Your task to perform on an android device: Go to Amazon Image 0: 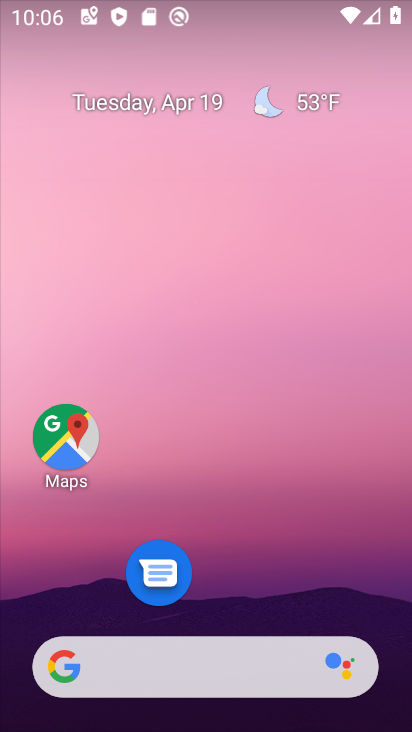
Step 0: drag from (226, 604) to (184, 24)
Your task to perform on an android device: Go to Amazon Image 1: 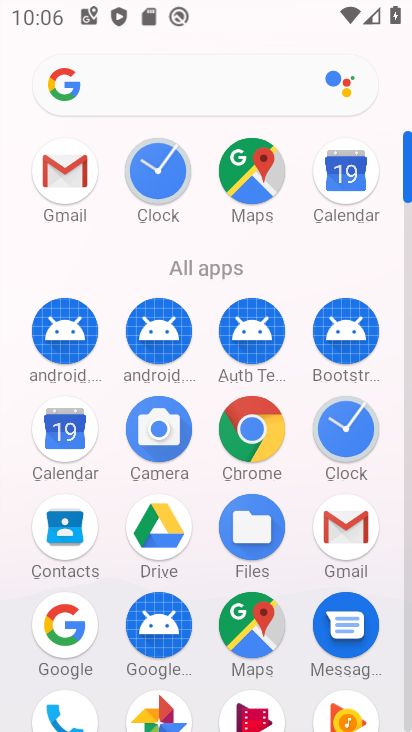
Step 1: click (234, 429)
Your task to perform on an android device: Go to Amazon Image 2: 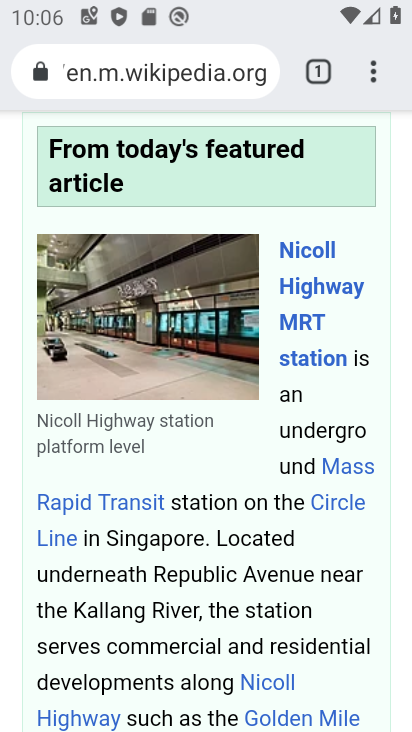
Step 2: click (321, 67)
Your task to perform on an android device: Go to Amazon Image 3: 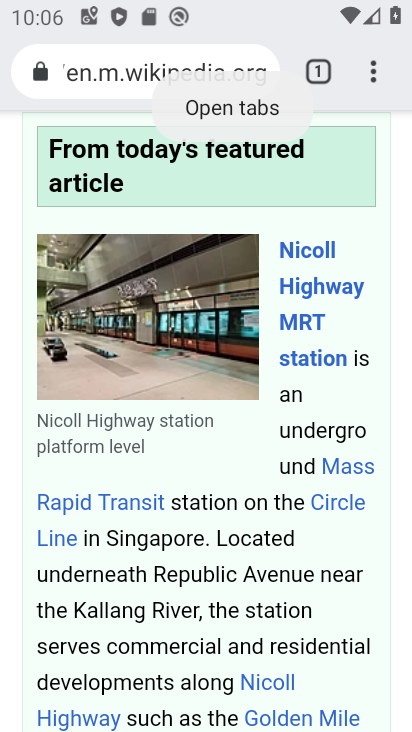
Step 3: click (311, 70)
Your task to perform on an android device: Go to Amazon Image 4: 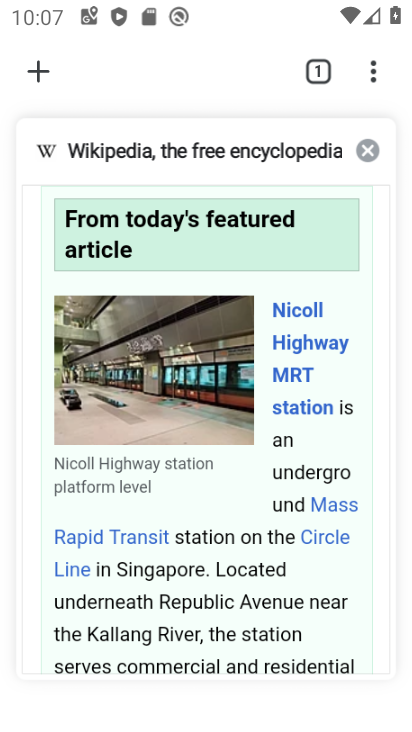
Step 4: click (41, 62)
Your task to perform on an android device: Go to Amazon Image 5: 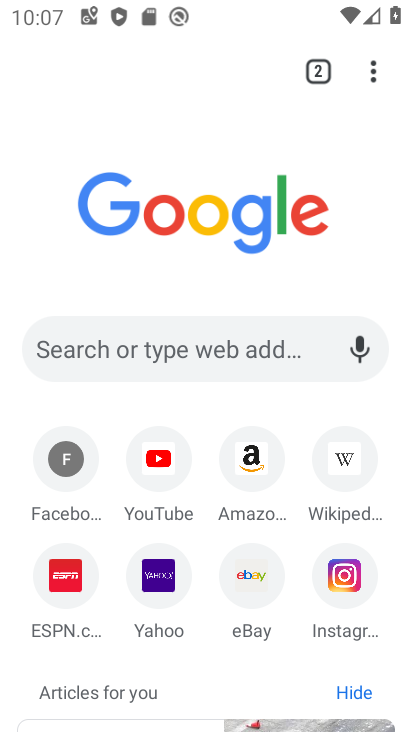
Step 5: click (255, 463)
Your task to perform on an android device: Go to Amazon Image 6: 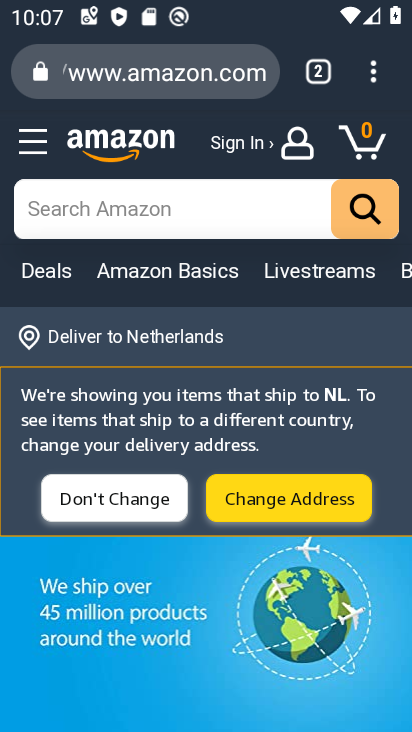
Step 6: task complete